Your task to perform on an android device: make emails show in primary in the gmail app Image 0: 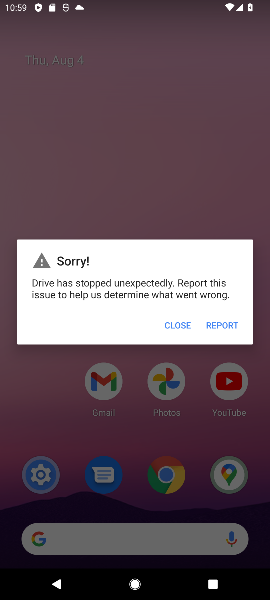
Step 0: press home button
Your task to perform on an android device: make emails show in primary in the gmail app Image 1: 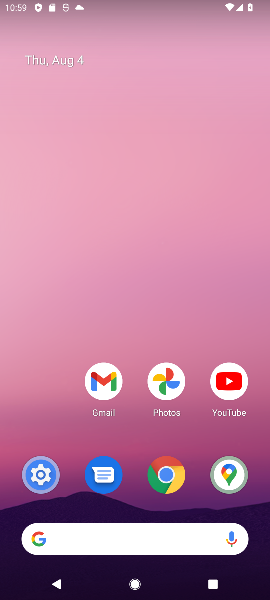
Step 1: click (105, 381)
Your task to perform on an android device: make emails show in primary in the gmail app Image 2: 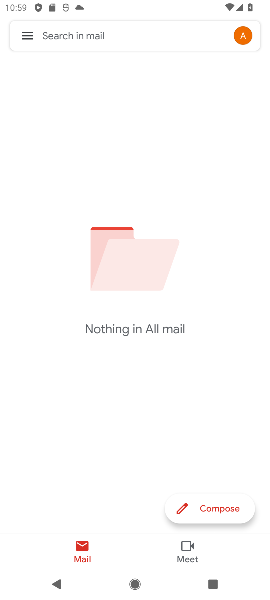
Step 2: click (20, 36)
Your task to perform on an android device: make emails show in primary in the gmail app Image 3: 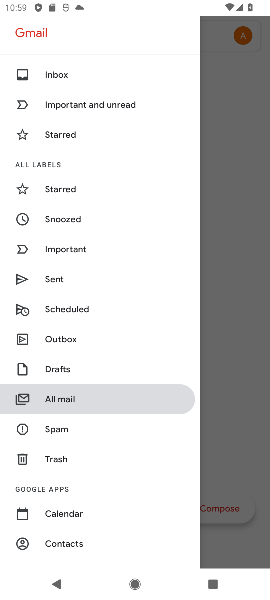
Step 3: drag from (96, 531) to (41, 310)
Your task to perform on an android device: make emails show in primary in the gmail app Image 4: 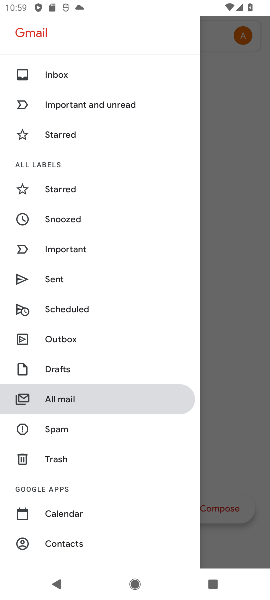
Step 4: drag from (101, 439) to (128, 242)
Your task to perform on an android device: make emails show in primary in the gmail app Image 5: 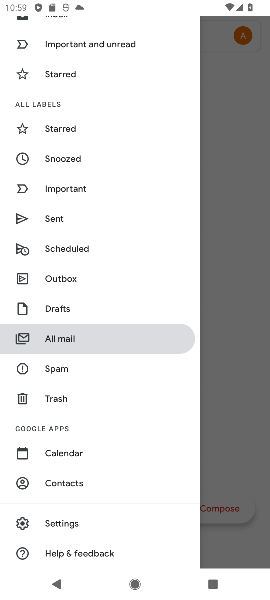
Step 5: click (97, 524)
Your task to perform on an android device: make emails show in primary in the gmail app Image 6: 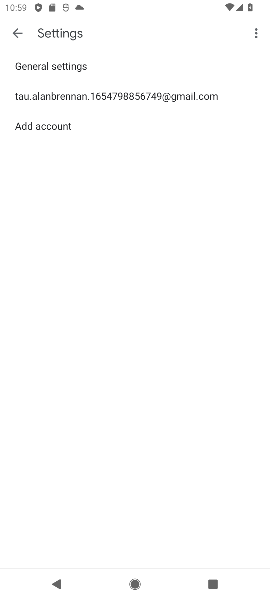
Step 6: click (50, 99)
Your task to perform on an android device: make emails show in primary in the gmail app Image 7: 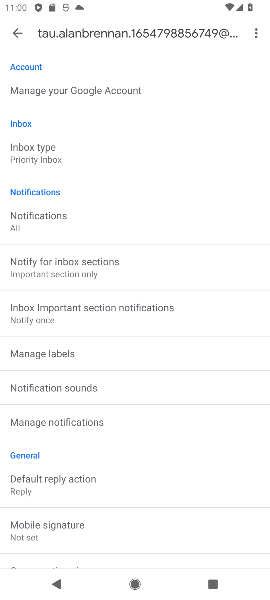
Step 7: click (61, 154)
Your task to perform on an android device: make emails show in primary in the gmail app Image 8: 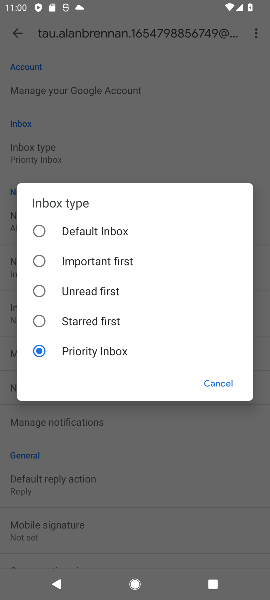
Step 8: click (101, 227)
Your task to perform on an android device: make emails show in primary in the gmail app Image 9: 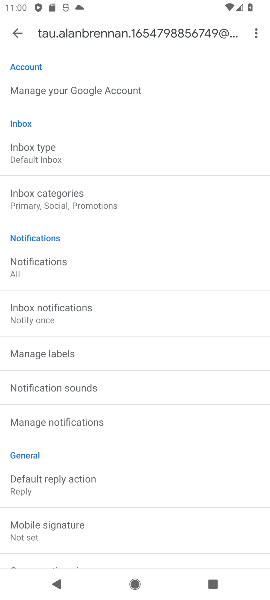
Step 9: click (122, 188)
Your task to perform on an android device: make emails show in primary in the gmail app Image 10: 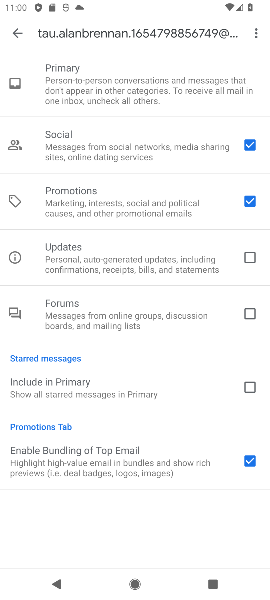
Step 10: click (251, 200)
Your task to perform on an android device: make emails show in primary in the gmail app Image 11: 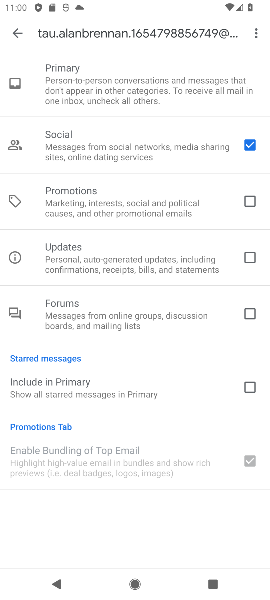
Step 11: click (249, 146)
Your task to perform on an android device: make emails show in primary in the gmail app Image 12: 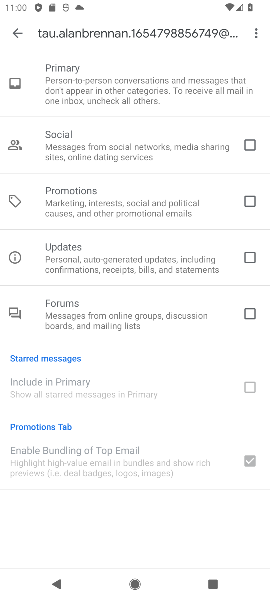
Step 12: task complete